Your task to perform on an android device: check data usage Image 0: 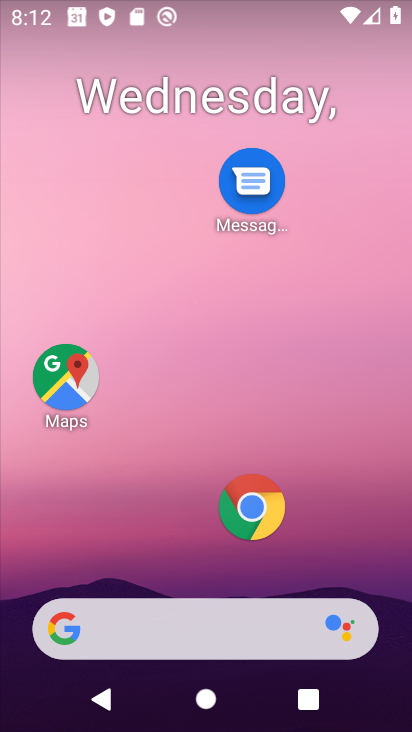
Step 0: drag from (118, 504) to (221, 0)
Your task to perform on an android device: check data usage Image 1: 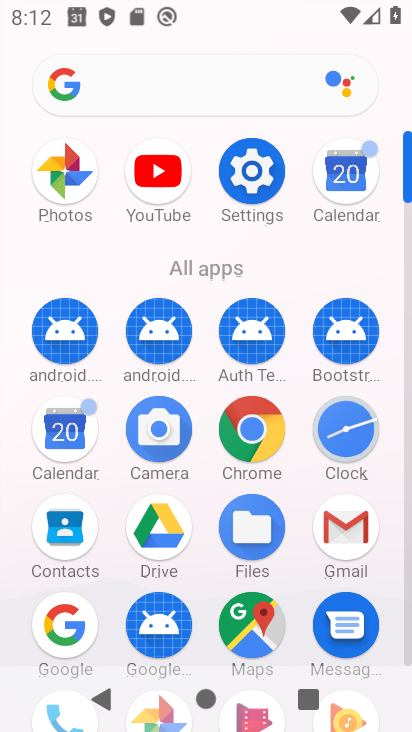
Step 1: drag from (147, 564) to (219, 307)
Your task to perform on an android device: check data usage Image 2: 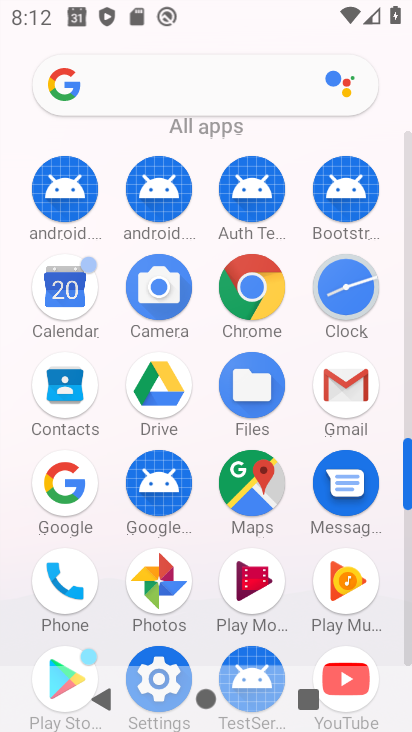
Step 2: click (152, 664)
Your task to perform on an android device: check data usage Image 3: 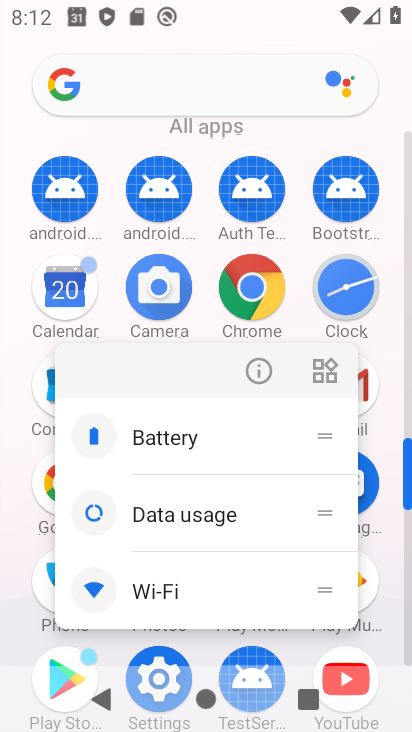
Step 3: click (163, 667)
Your task to perform on an android device: check data usage Image 4: 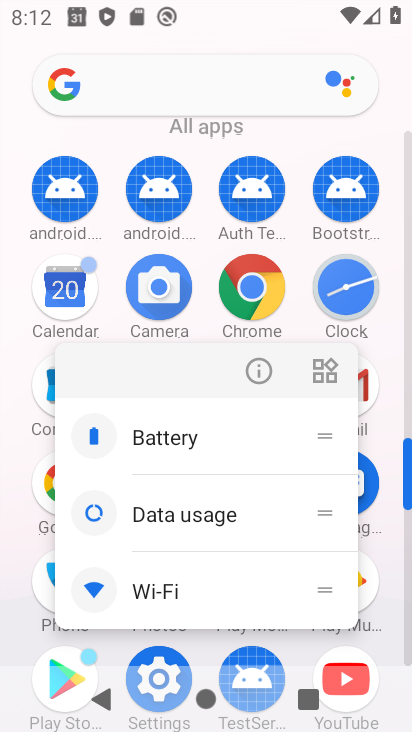
Step 4: click (166, 676)
Your task to perform on an android device: check data usage Image 5: 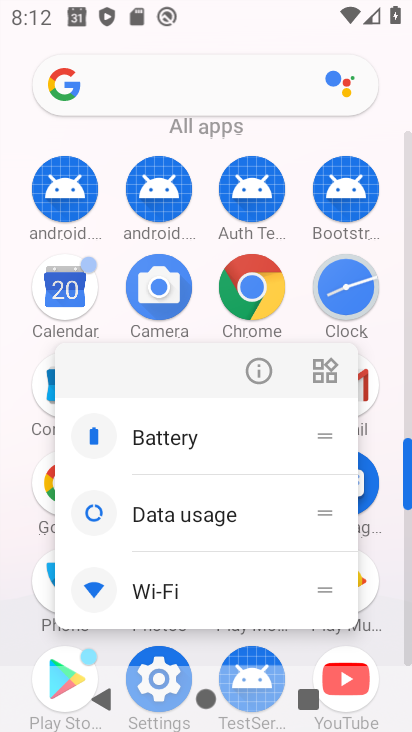
Step 5: click (149, 662)
Your task to perform on an android device: check data usage Image 6: 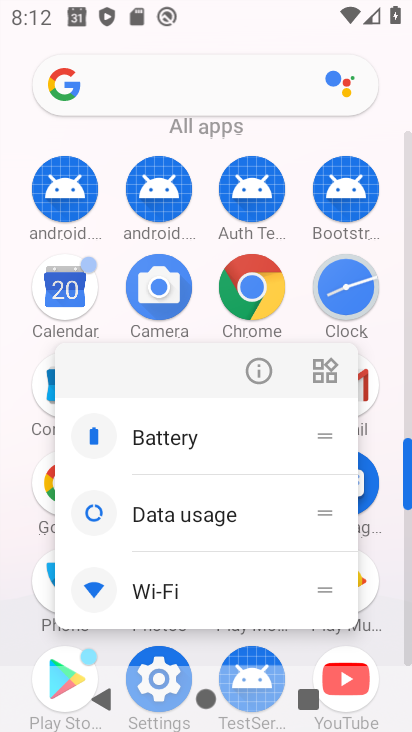
Step 6: click (157, 662)
Your task to perform on an android device: check data usage Image 7: 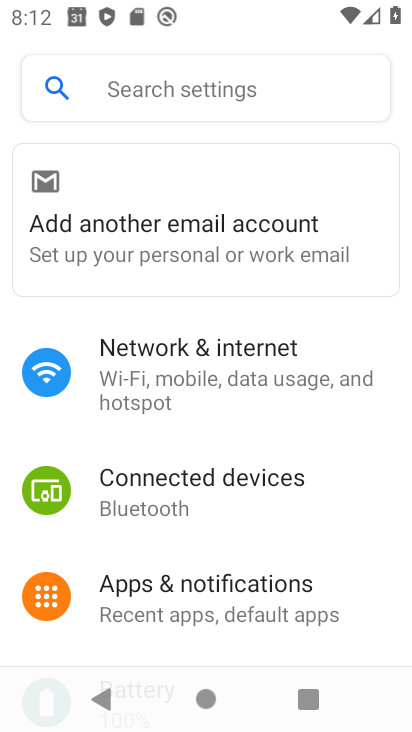
Step 7: click (156, 378)
Your task to perform on an android device: check data usage Image 8: 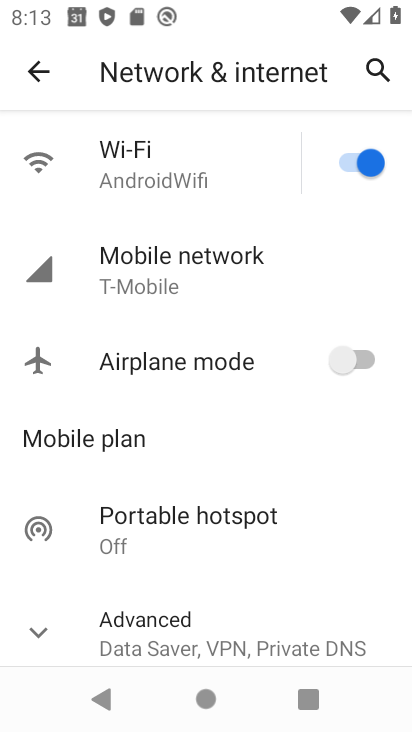
Step 8: click (234, 281)
Your task to perform on an android device: check data usage Image 9: 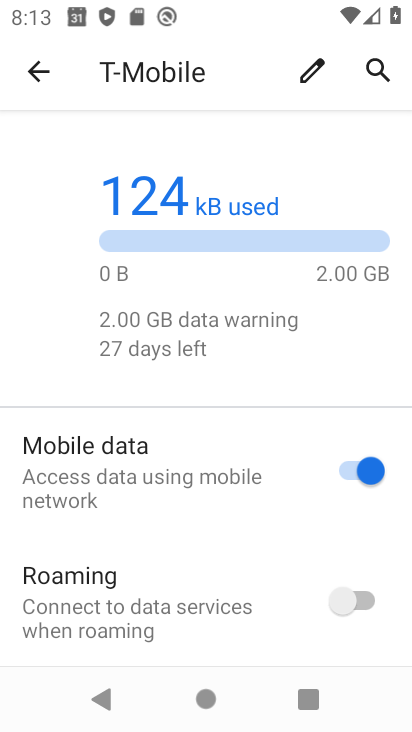
Step 9: drag from (197, 523) to (245, 284)
Your task to perform on an android device: check data usage Image 10: 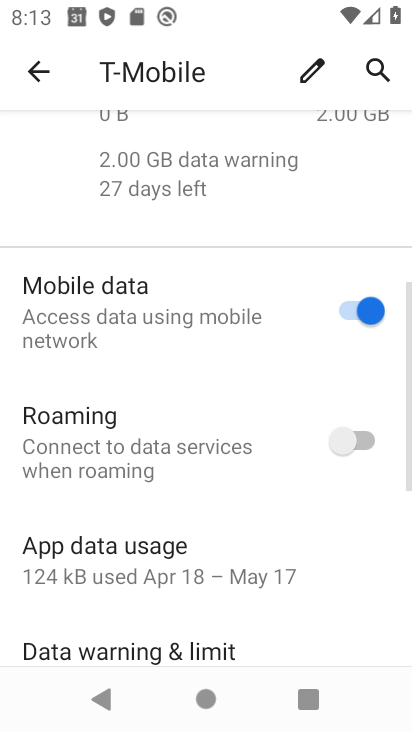
Step 10: click (182, 553)
Your task to perform on an android device: check data usage Image 11: 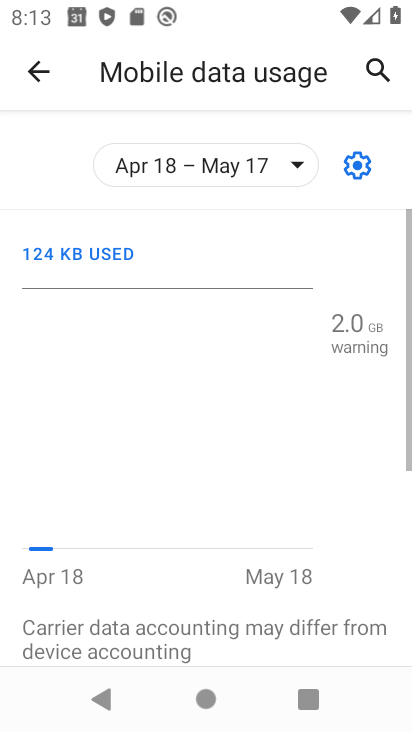
Step 11: task complete